Your task to perform on an android device: Show me popular games on the Play Store Image 0: 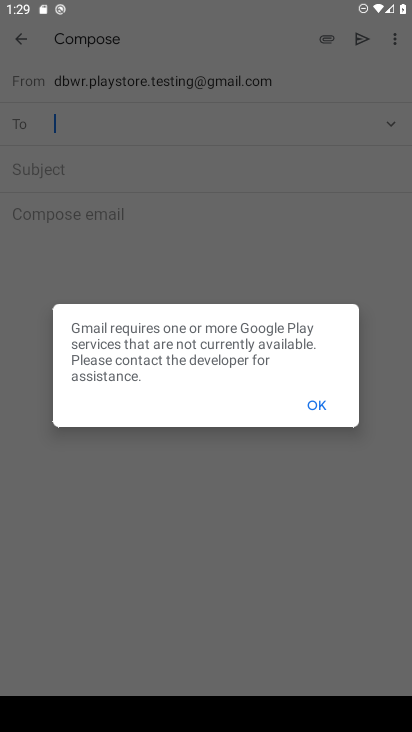
Step 0: press home button
Your task to perform on an android device: Show me popular games on the Play Store Image 1: 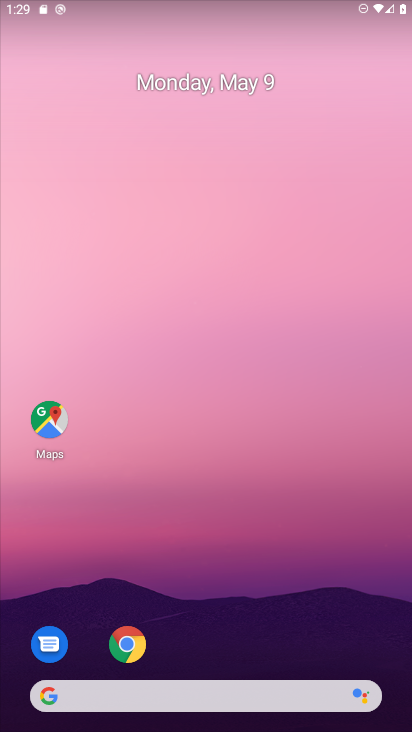
Step 1: drag from (208, 602) to (273, 185)
Your task to perform on an android device: Show me popular games on the Play Store Image 2: 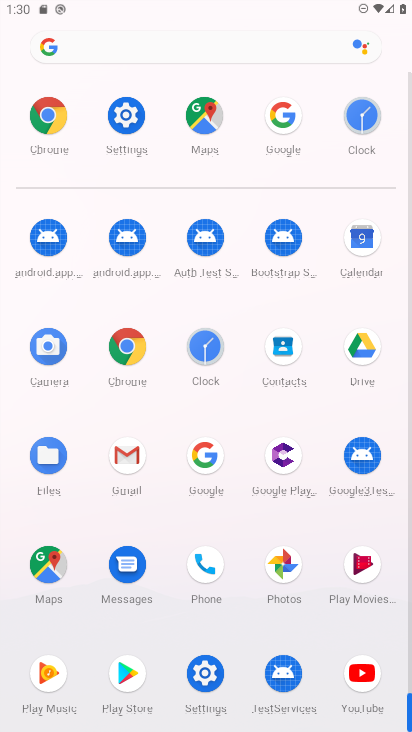
Step 2: click (112, 703)
Your task to perform on an android device: Show me popular games on the Play Store Image 3: 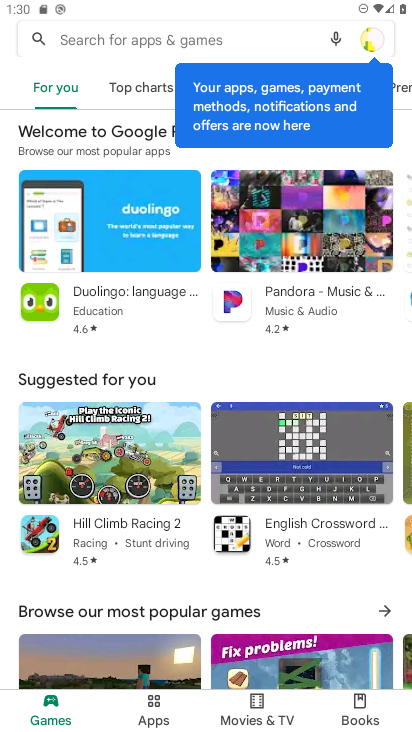
Step 3: task complete